Your task to perform on an android device: What's the weather going to be tomorrow? Image 0: 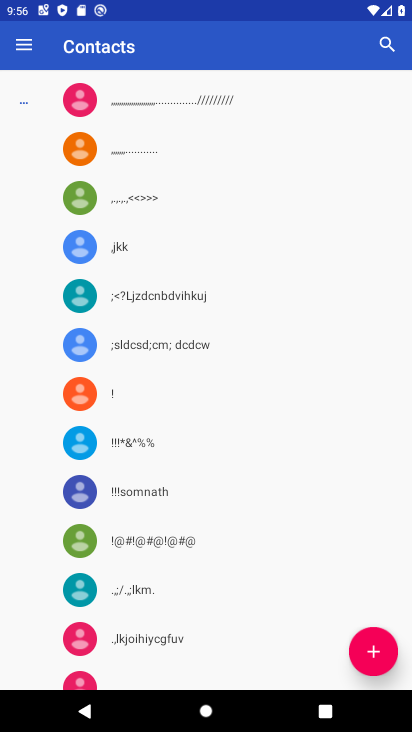
Step 0: press home button
Your task to perform on an android device: What's the weather going to be tomorrow? Image 1: 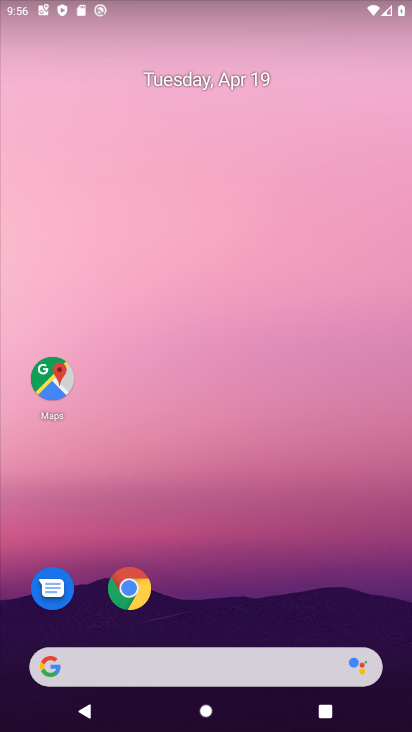
Step 1: drag from (177, 445) to (222, 124)
Your task to perform on an android device: What's the weather going to be tomorrow? Image 2: 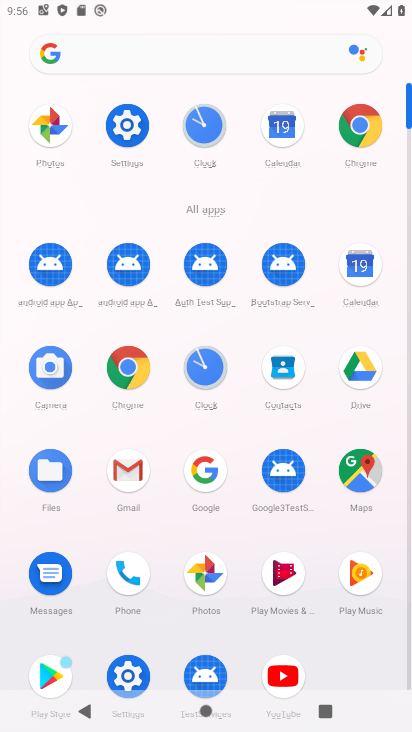
Step 2: click (128, 371)
Your task to perform on an android device: What's the weather going to be tomorrow? Image 3: 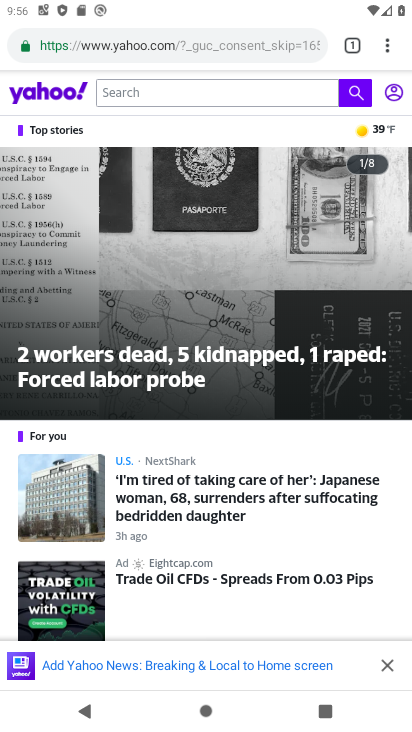
Step 3: click (161, 51)
Your task to perform on an android device: What's the weather going to be tomorrow? Image 4: 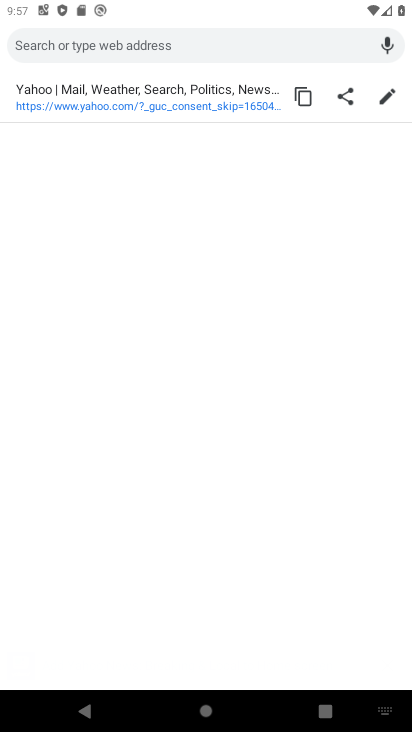
Step 4: type "what's the weather going to be tomorrow?"
Your task to perform on an android device: What's the weather going to be tomorrow? Image 5: 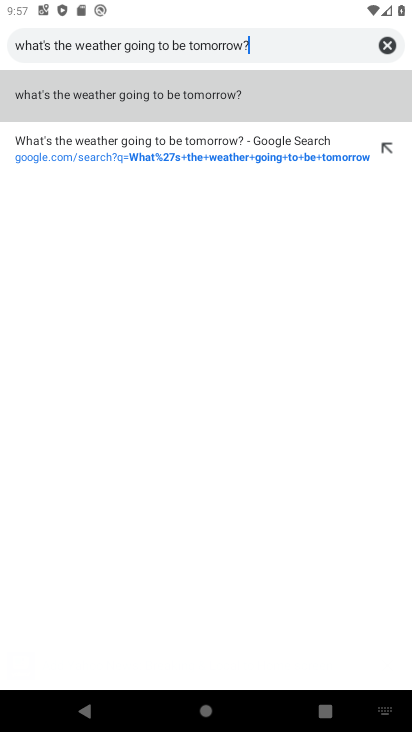
Step 5: click (110, 102)
Your task to perform on an android device: What's the weather going to be tomorrow? Image 6: 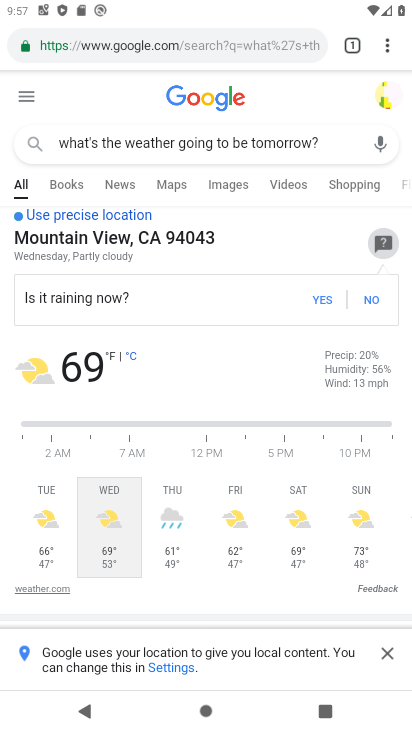
Step 6: task complete